Your task to perform on an android device: delete browsing data in the chrome app Image 0: 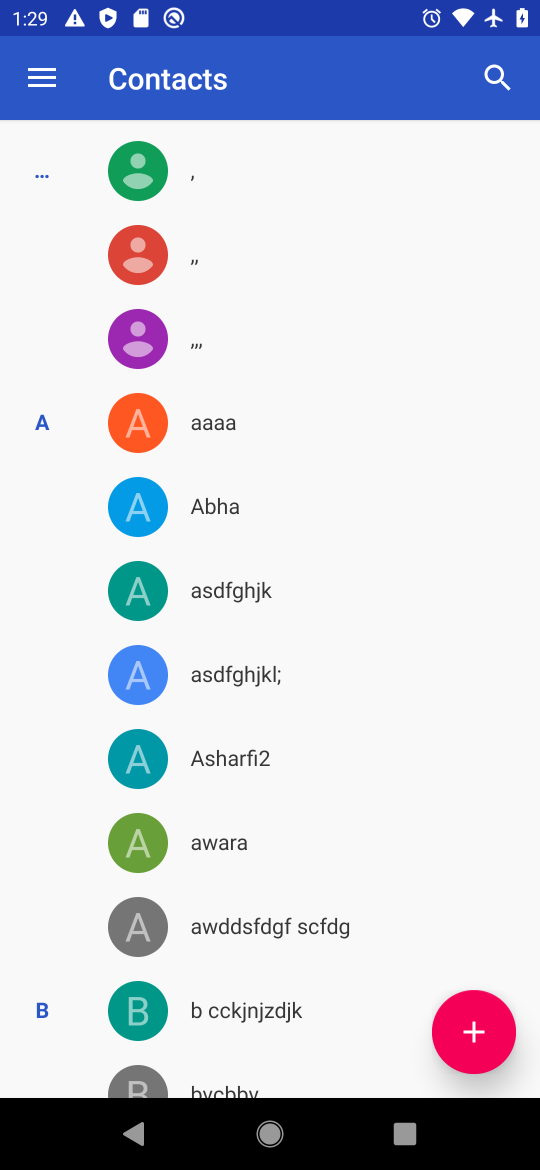
Step 0: task complete